Your task to perform on an android device: Go to display settings Image 0: 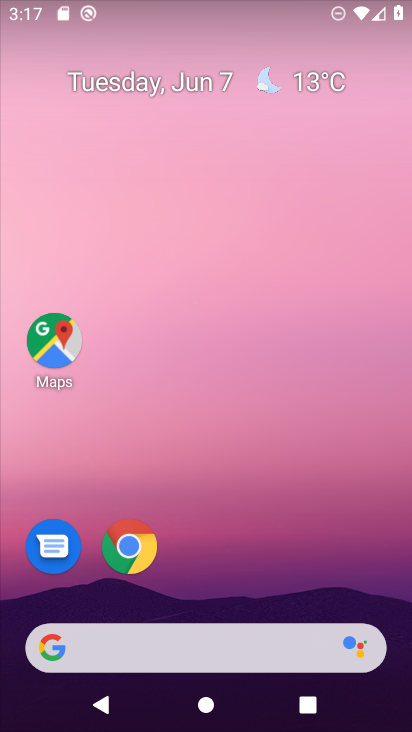
Step 0: drag from (25, 607) to (282, 64)
Your task to perform on an android device: Go to display settings Image 1: 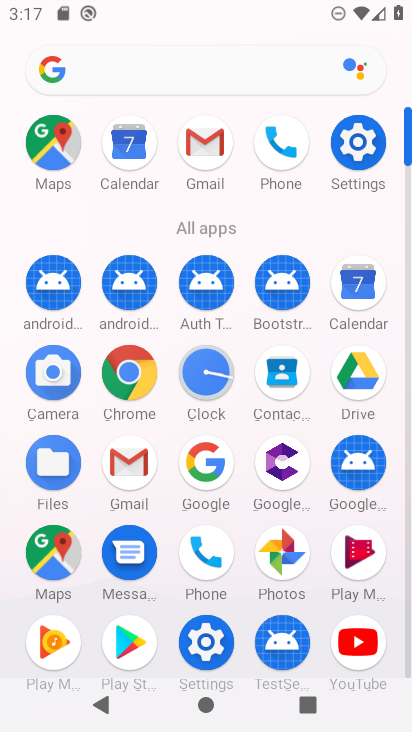
Step 1: click (343, 137)
Your task to perform on an android device: Go to display settings Image 2: 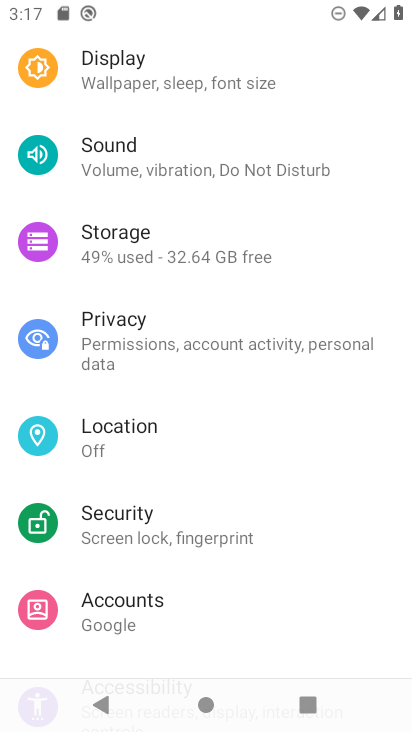
Step 2: click (187, 70)
Your task to perform on an android device: Go to display settings Image 3: 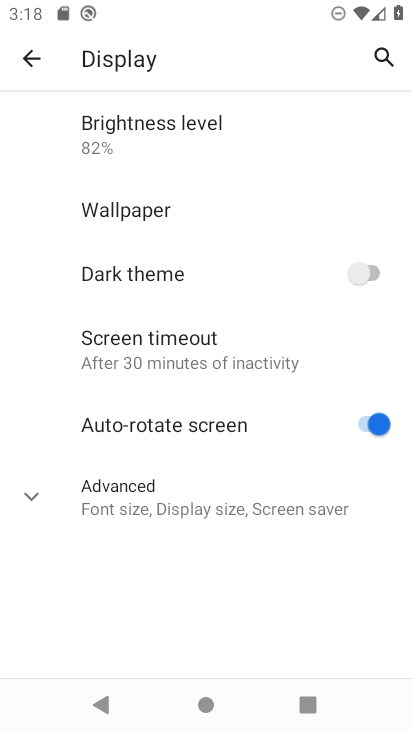
Step 3: task complete